Your task to perform on an android device: Go to location settings Image 0: 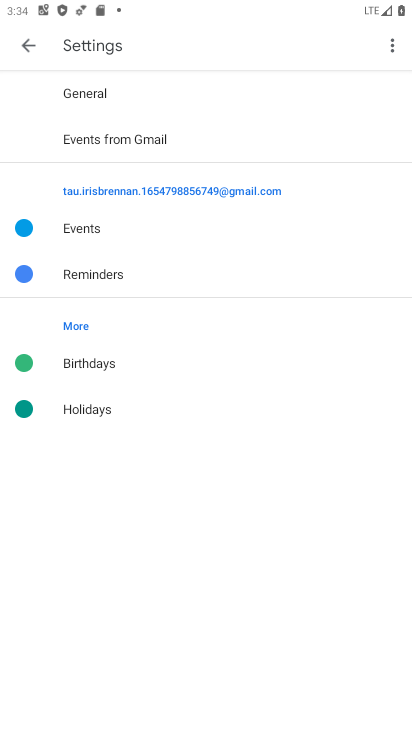
Step 0: press home button
Your task to perform on an android device: Go to location settings Image 1: 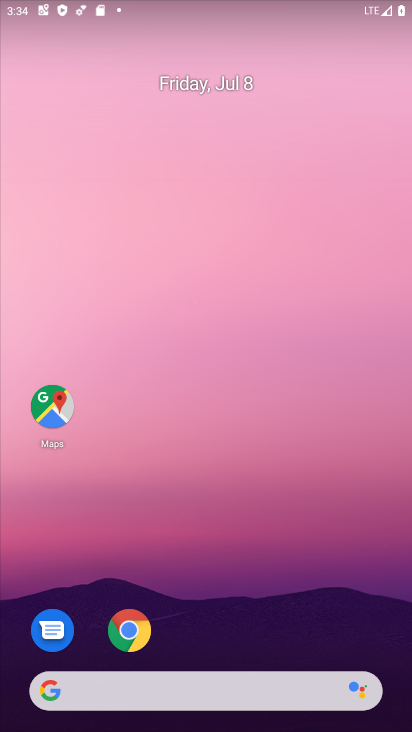
Step 1: drag from (221, 662) to (201, 116)
Your task to perform on an android device: Go to location settings Image 2: 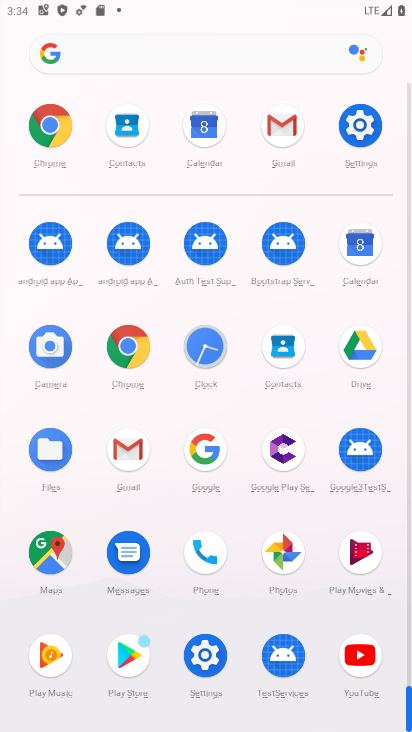
Step 2: click (362, 123)
Your task to perform on an android device: Go to location settings Image 3: 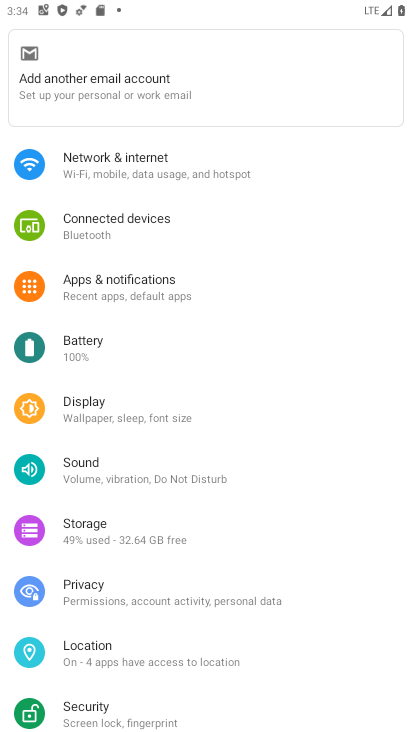
Step 3: drag from (134, 510) to (185, 407)
Your task to perform on an android device: Go to location settings Image 4: 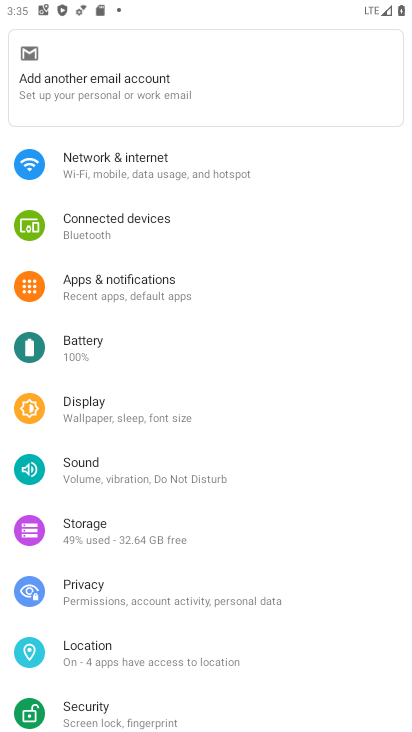
Step 4: click (99, 643)
Your task to perform on an android device: Go to location settings Image 5: 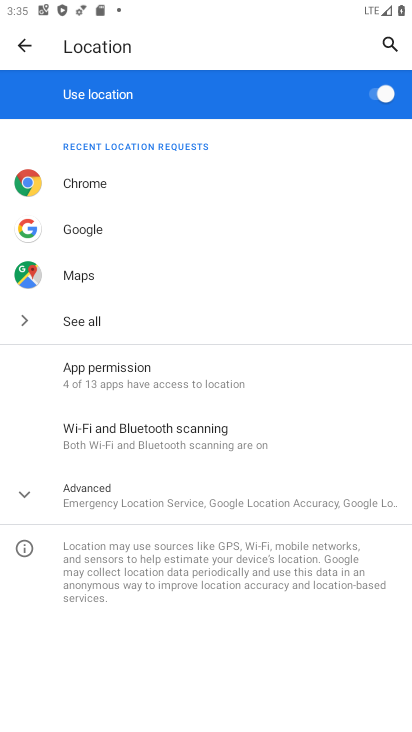
Step 5: task complete